Your task to perform on an android device: turn on bluetooth scan Image 0: 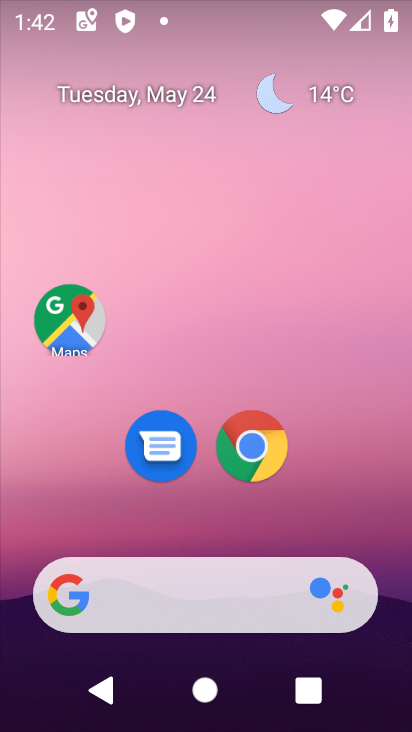
Step 0: drag from (87, 552) to (210, 72)
Your task to perform on an android device: turn on bluetooth scan Image 1: 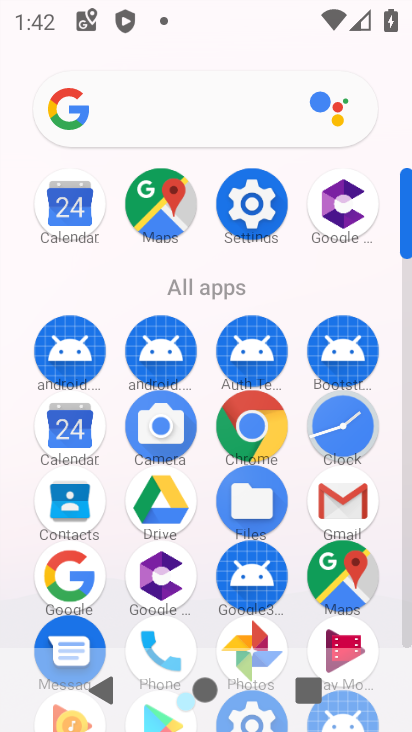
Step 1: drag from (162, 619) to (225, 361)
Your task to perform on an android device: turn on bluetooth scan Image 2: 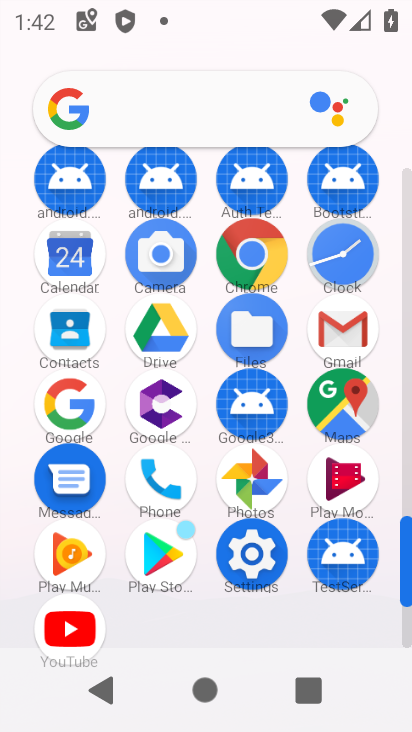
Step 2: click (248, 552)
Your task to perform on an android device: turn on bluetooth scan Image 3: 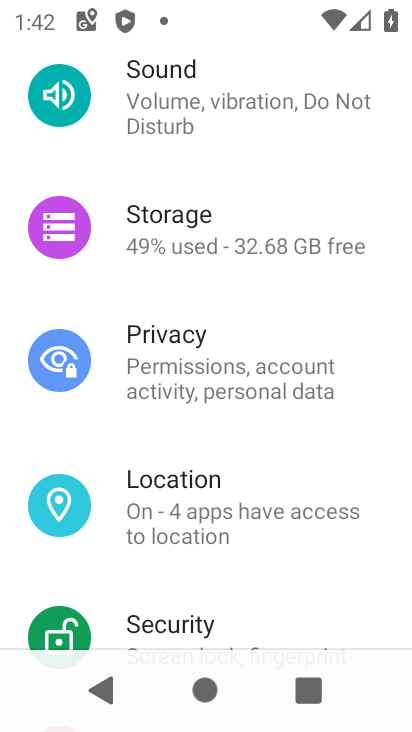
Step 3: drag from (220, 183) to (190, 712)
Your task to perform on an android device: turn on bluetooth scan Image 4: 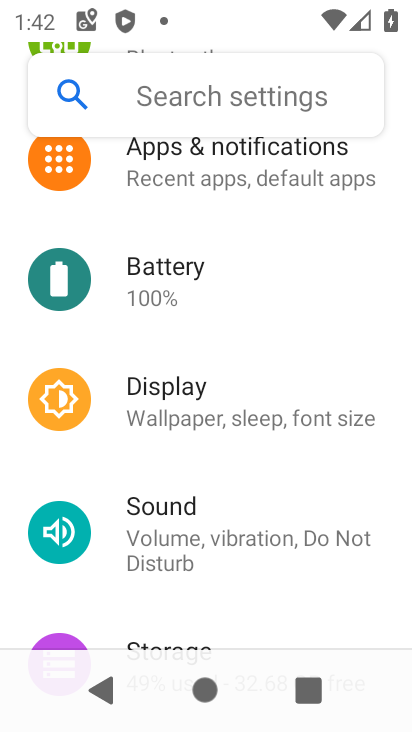
Step 4: drag from (201, 299) to (207, 674)
Your task to perform on an android device: turn on bluetooth scan Image 5: 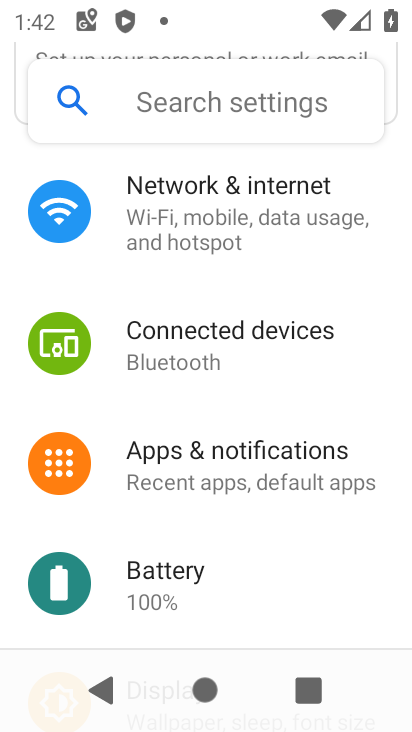
Step 5: click (229, 375)
Your task to perform on an android device: turn on bluetooth scan Image 6: 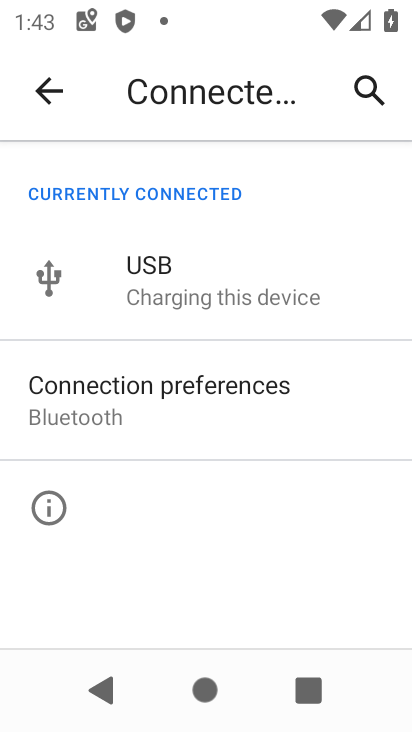
Step 6: click (194, 381)
Your task to perform on an android device: turn on bluetooth scan Image 7: 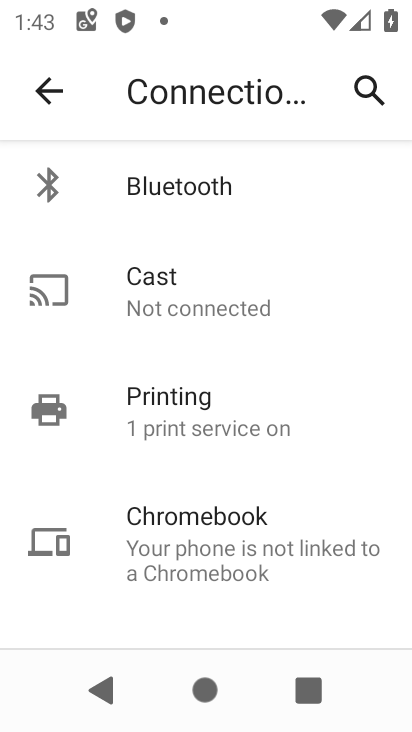
Step 7: click (258, 168)
Your task to perform on an android device: turn on bluetooth scan Image 8: 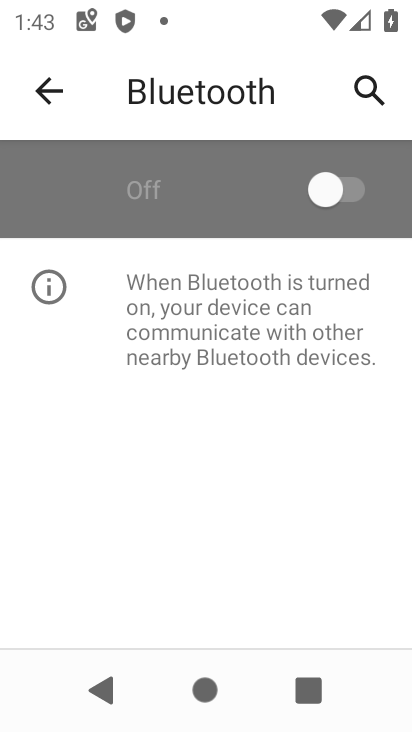
Step 8: click (369, 193)
Your task to perform on an android device: turn on bluetooth scan Image 9: 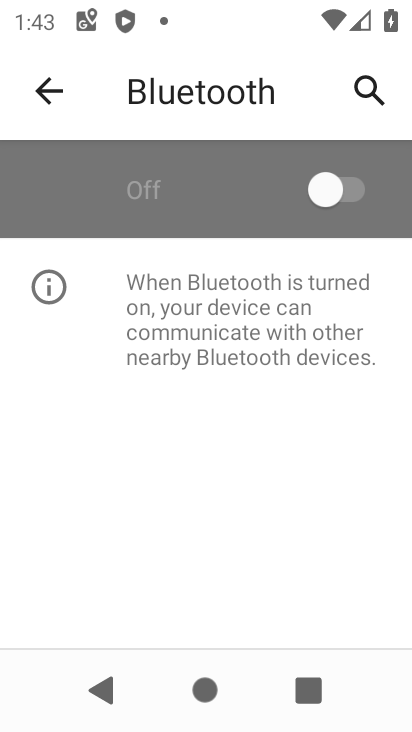
Step 9: task complete